Your task to perform on an android device: Show the shopping cart on bestbuy.com. Image 0: 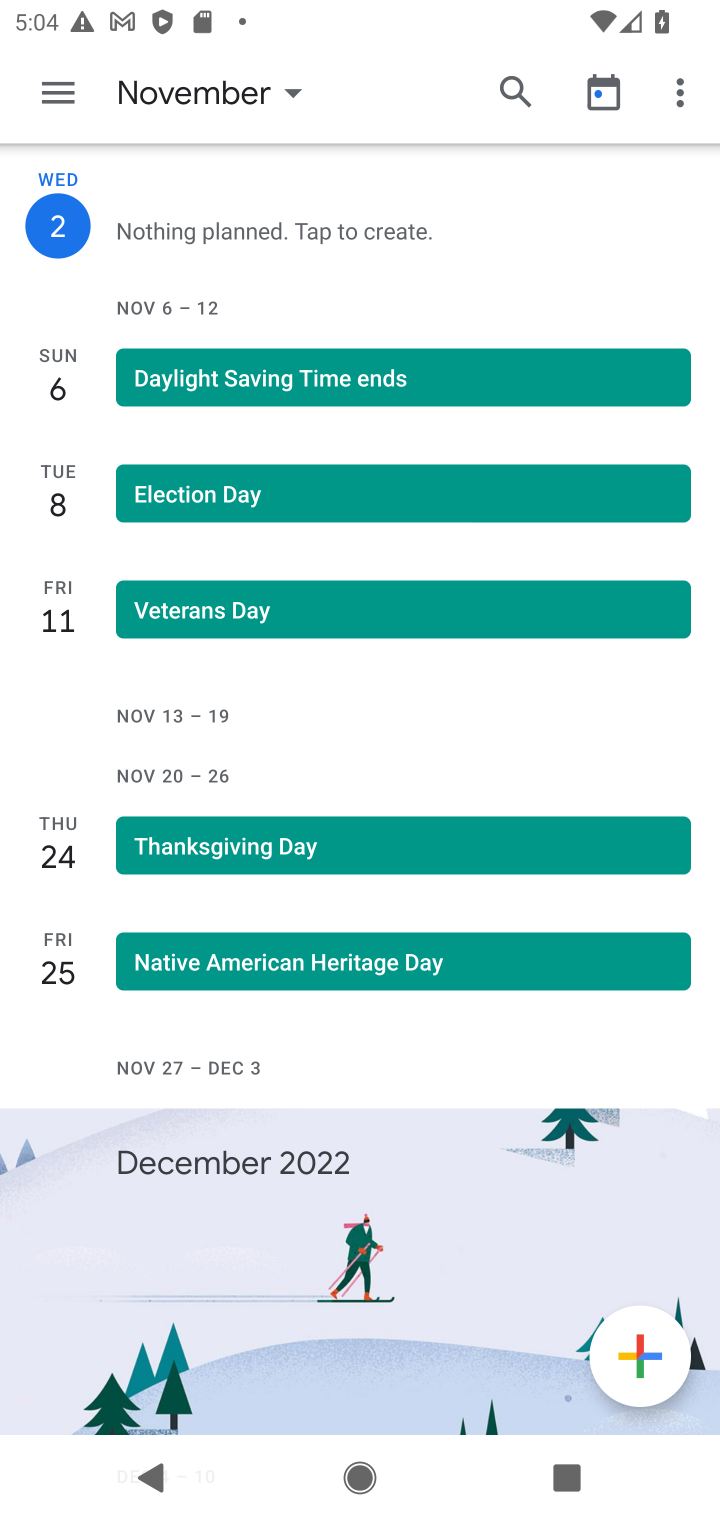
Step 0: press home button
Your task to perform on an android device: Show the shopping cart on bestbuy.com. Image 1: 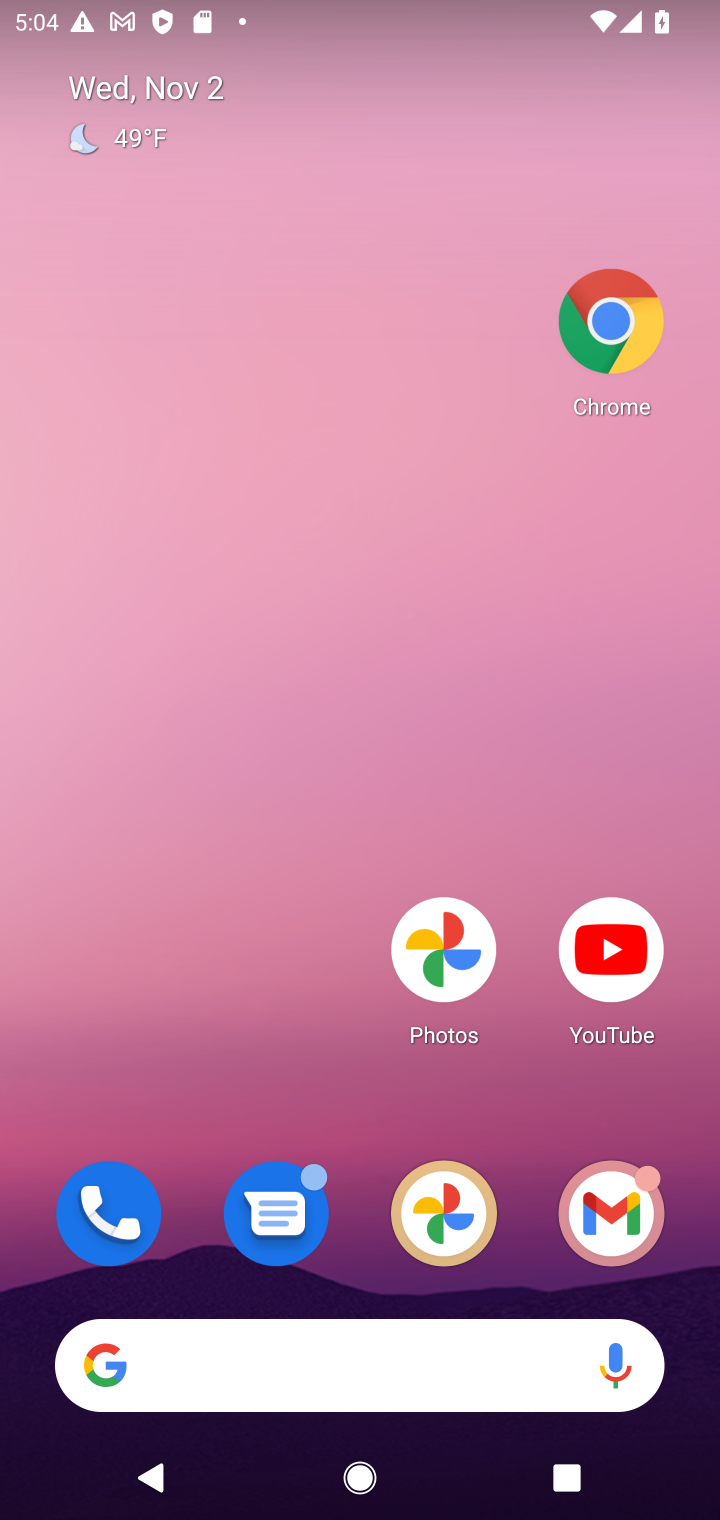
Step 1: drag from (258, 1083) to (319, 178)
Your task to perform on an android device: Show the shopping cart on bestbuy.com. Image 2: 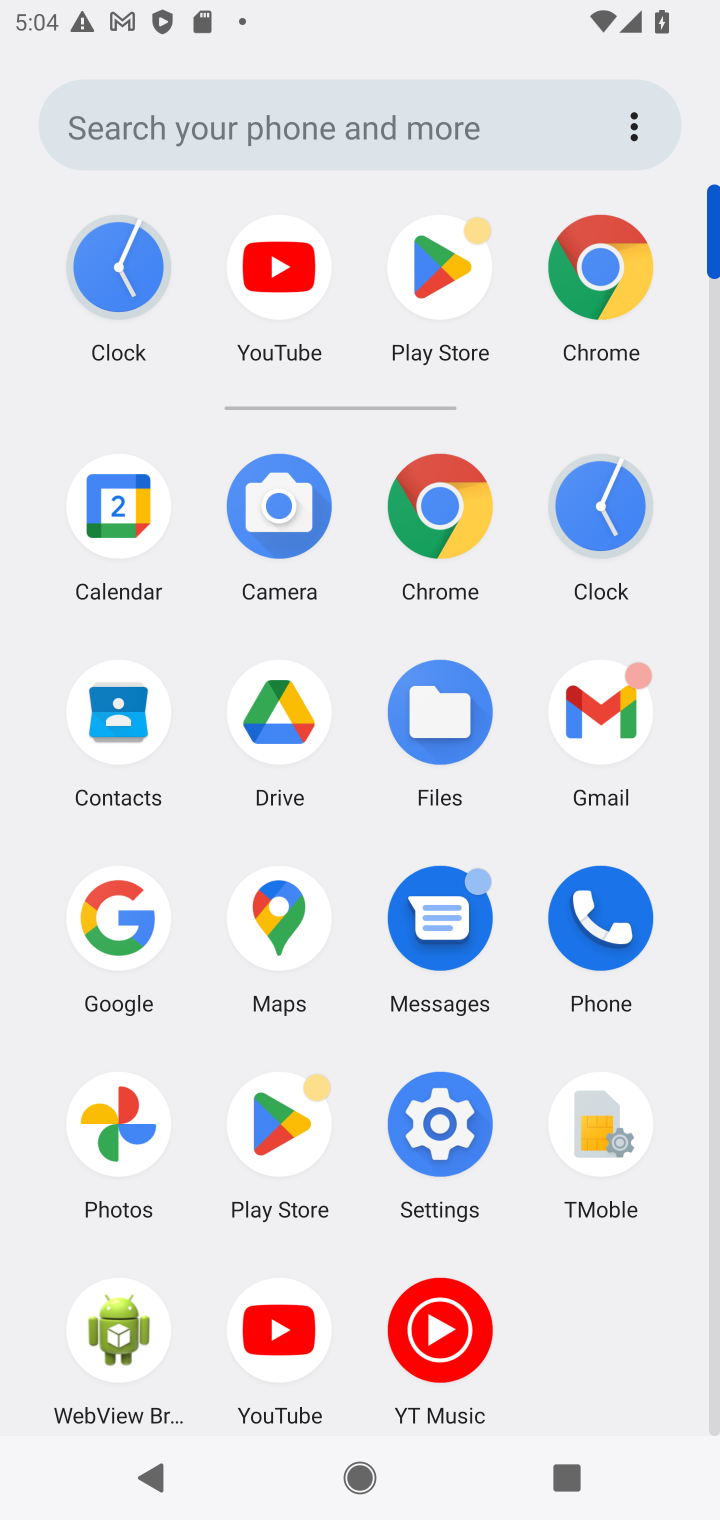
Step 2: click (121, 914)
Your task to perform on an android device: Show the shopping cart on bestbuy.com. Image 3: 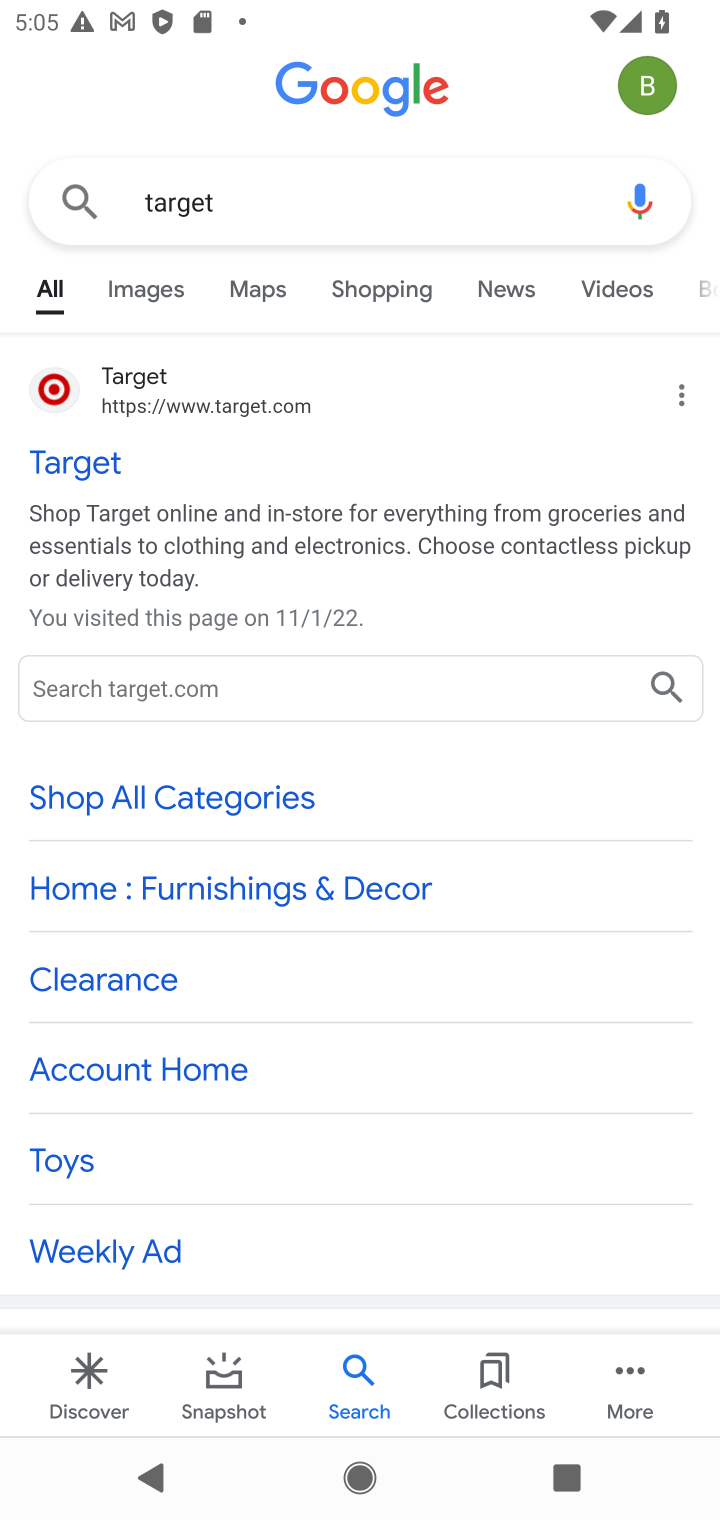
Step 3: click (387, 212)
Your task to perform on an android device: Show the shopping cart on bestbuy.com. Image 4: 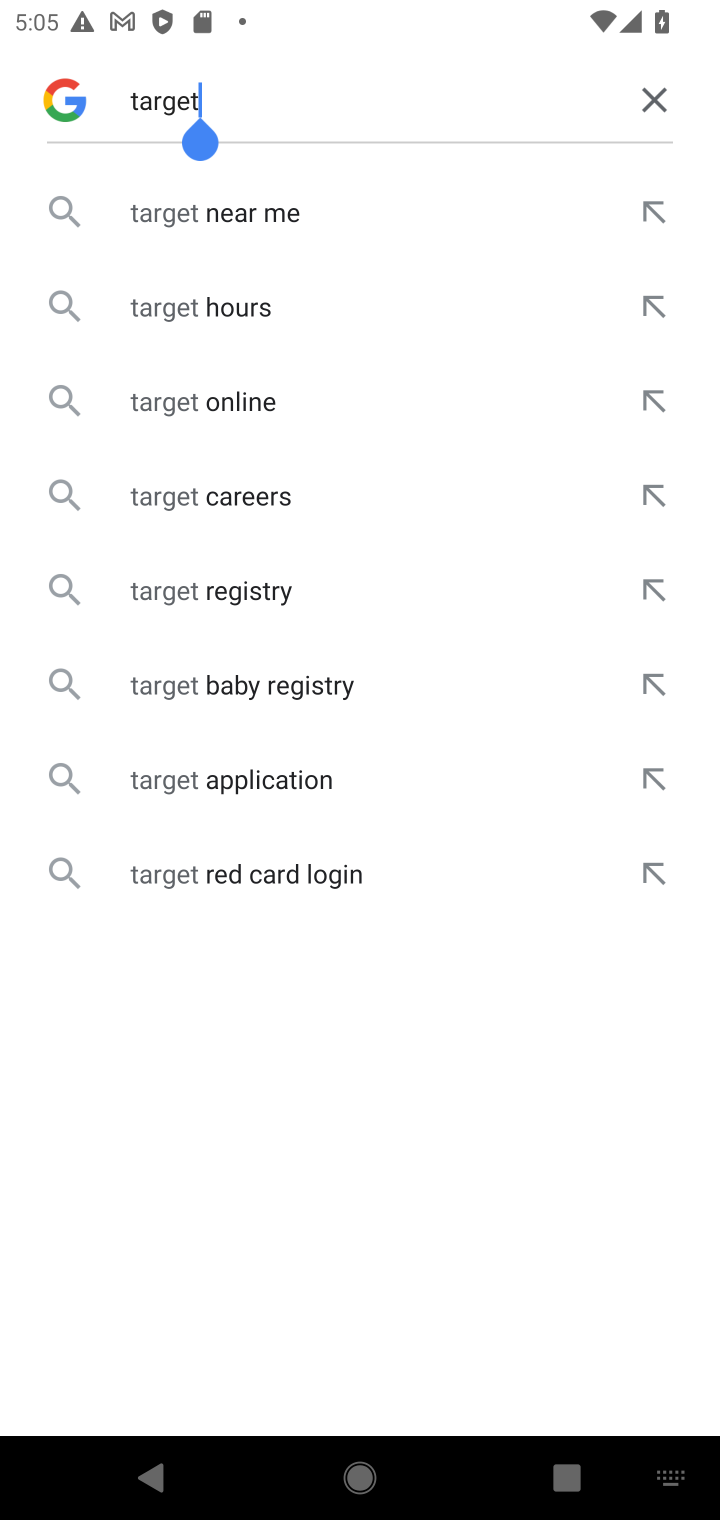
Step 4: click (658, 108)
Your task to perform on an android device: Show the shopping cart on bestbuy.com. Image 5: 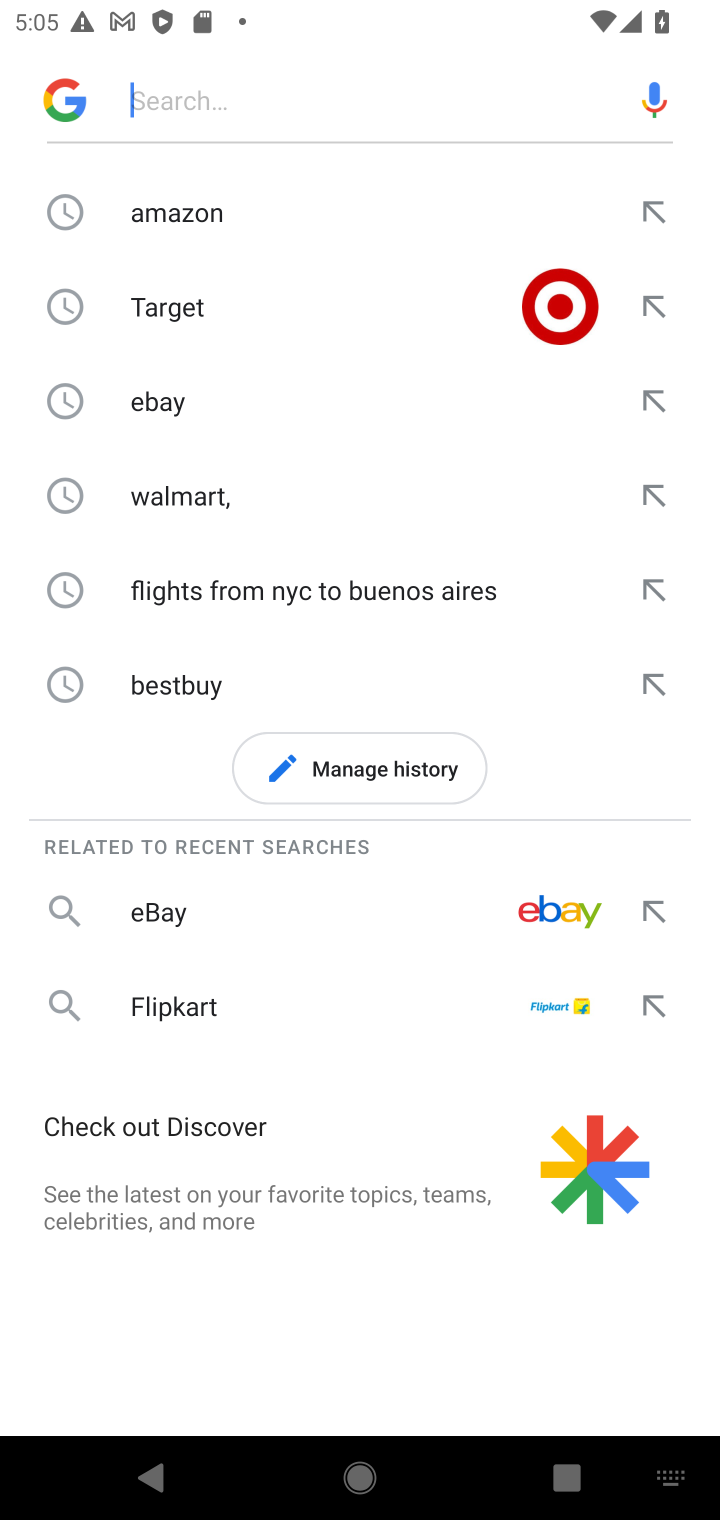
Step 5: type "bestbuy.com"
Your task to perform on an android device: Show the shopping cart on bestbuy.com. Image 6: 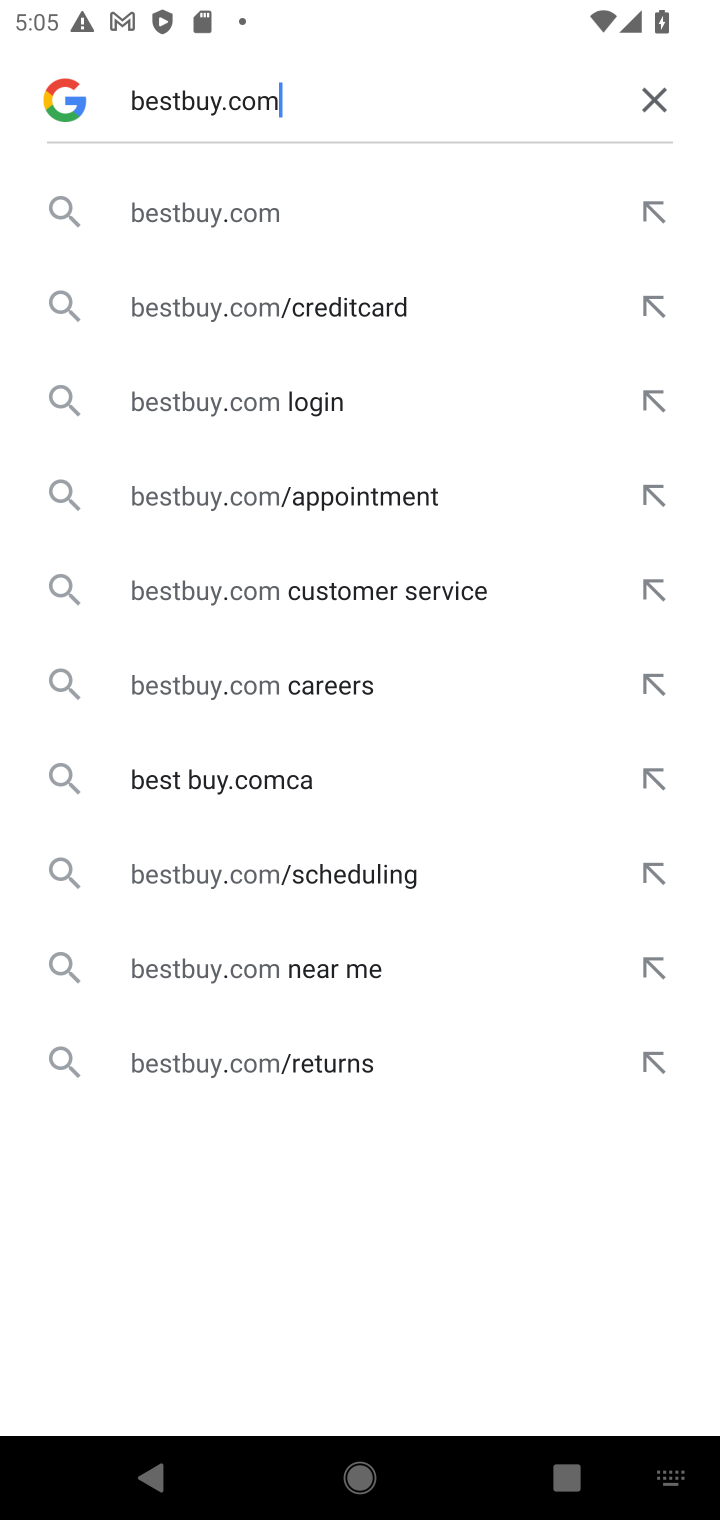
Step 6: click (241, 209)
Your task to perform on an android device: Show the shopping cart on bestbuy.com. Image 7: 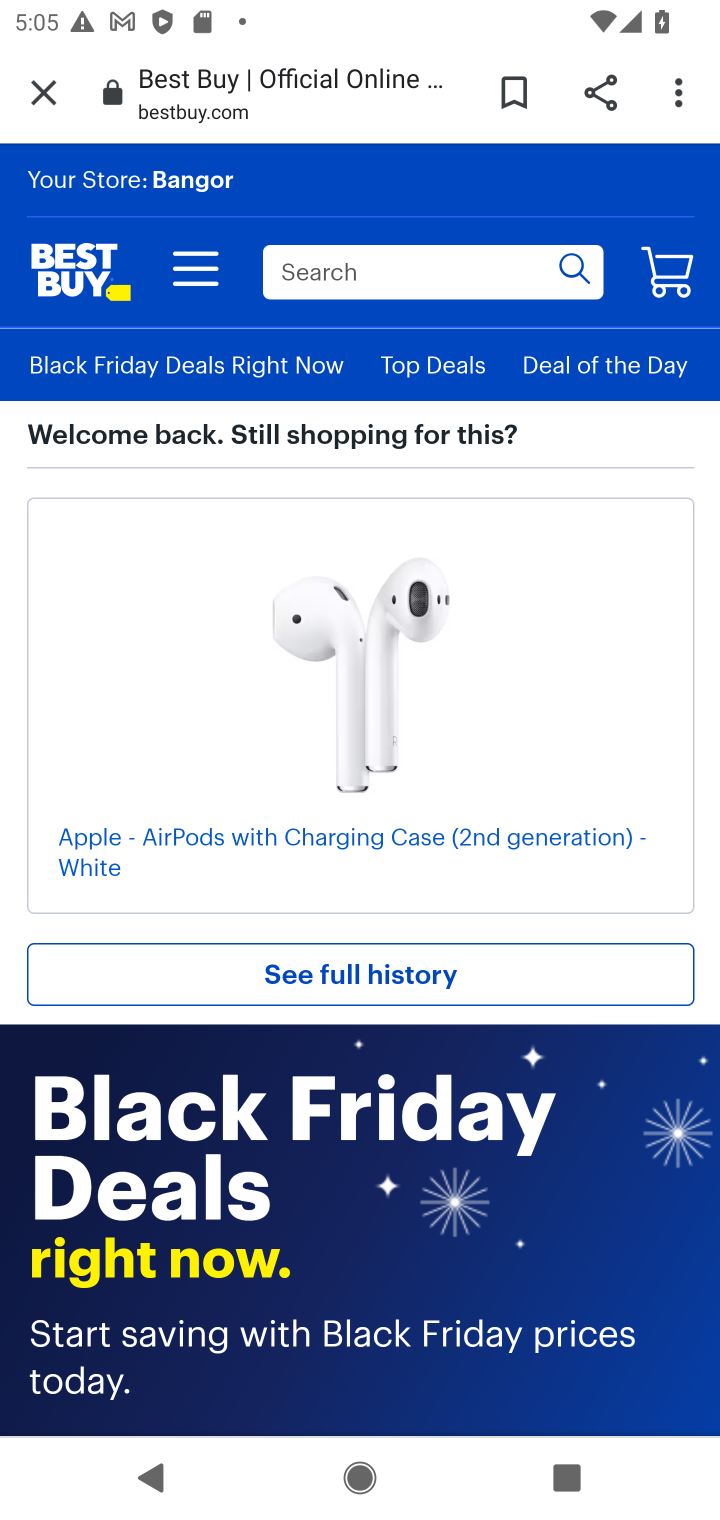
Step 7: drag from (241, 209) to (330, 161)
Your task to perform on an android device: Show the shopping cart on bestbuy.com. Image 8: 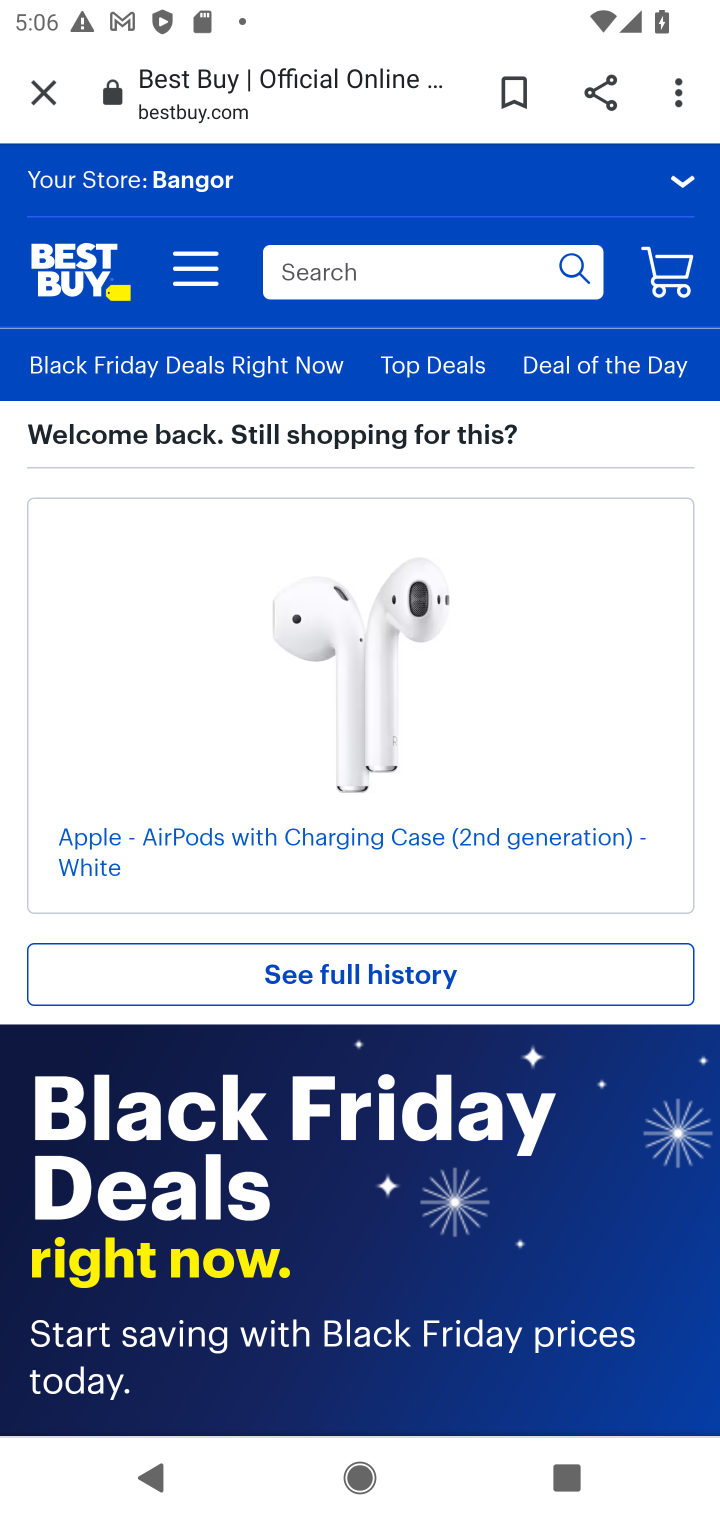
Step 8: click (656, 289)
Your task to perform on an android device: Show the shopping cart on bestbuy.com. Image 9: 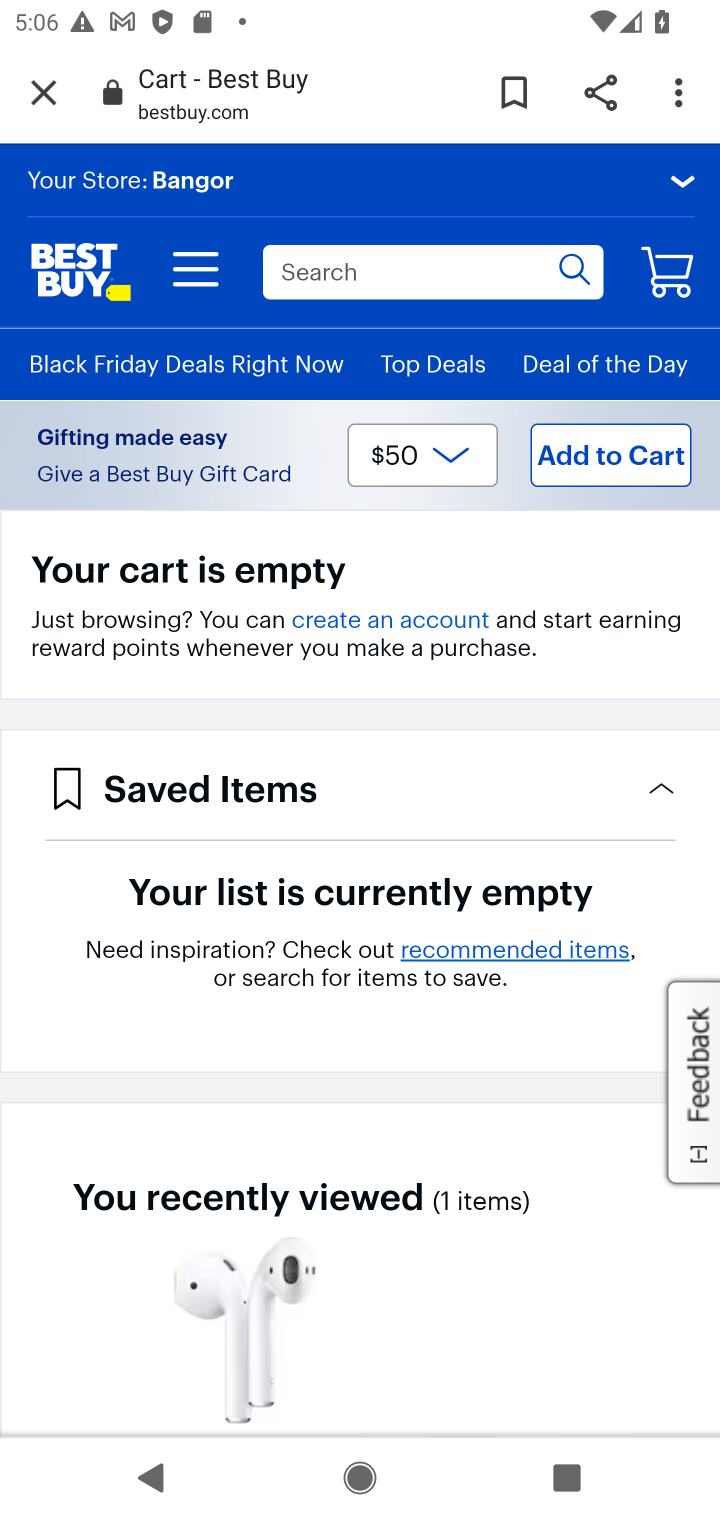
Step 9: task complete